Your task to perform on an android device: open a bookmark in the chrome app Image 0: 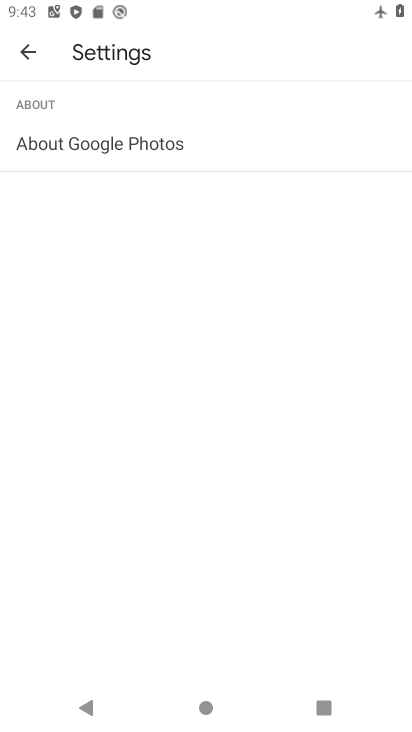
Step 0: press home button
Your task to perform on an android device: open a bookmark in the chrome app Image 1: 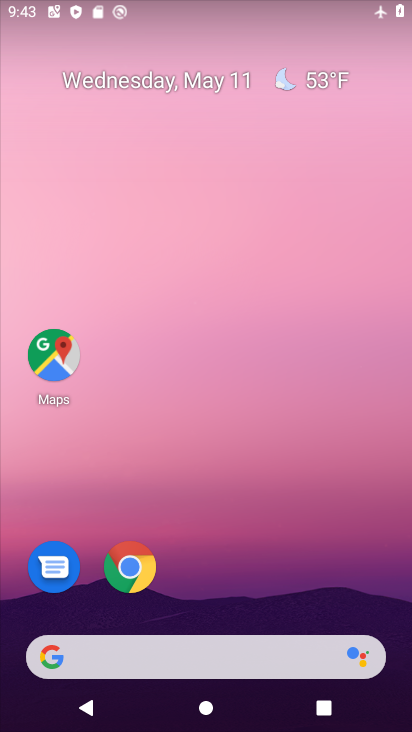
Step 1: click (126, 575)
Your task to perform on an android device: open a bookmark in the chrome app Image 2: 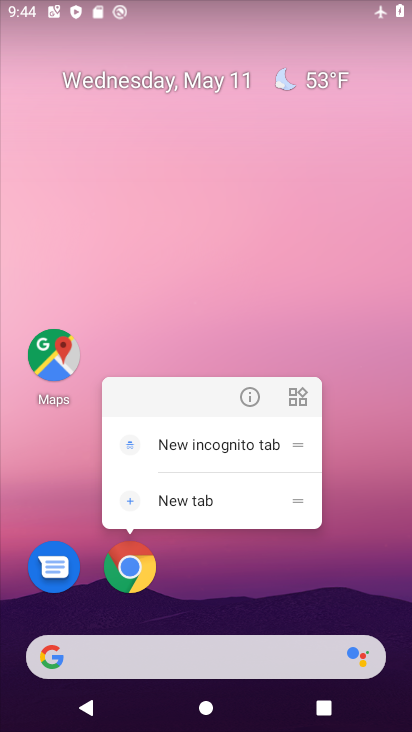
Step 2: click (125, 574)
Your task to perform on an android device: open a bookmark in the chrome app Image 3: 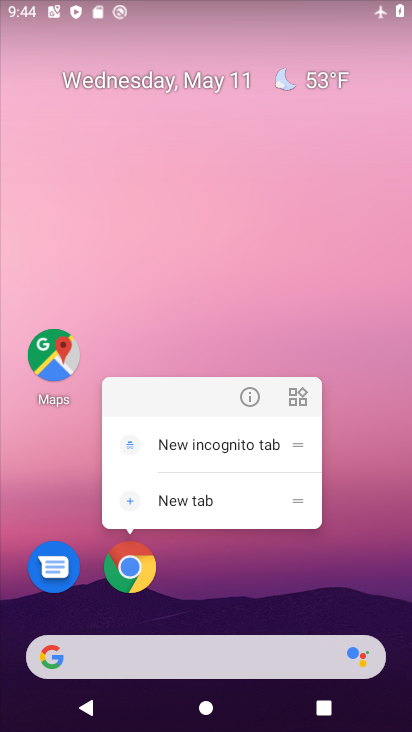
Step 3: click (125, 574)
Your task to perform on an android device: open a bookmark in the chrome app Image 4: 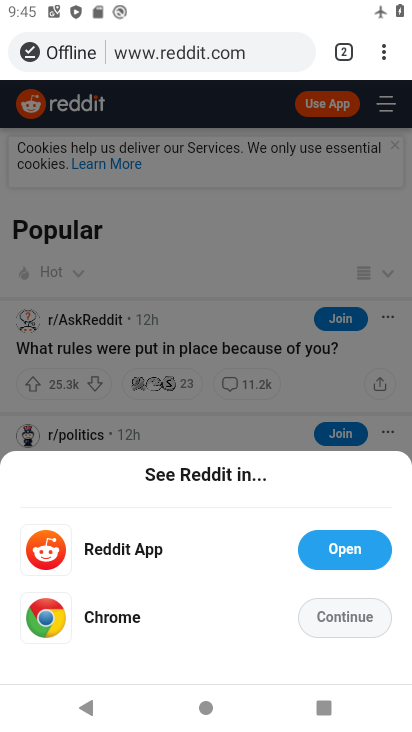
Step 4: click (384, 47)
Your task to perform on an android device: open a bookmark in the chrome app Image 5: 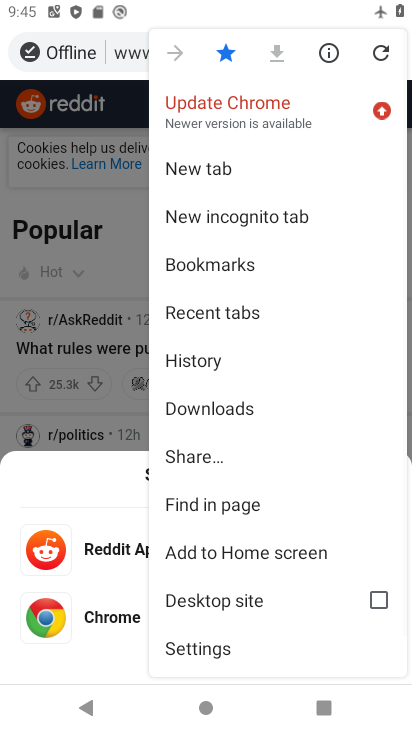
Step 5: click (232, 269)
Your task to perform on an android device: open a bookmark in the chrome app Image 6: 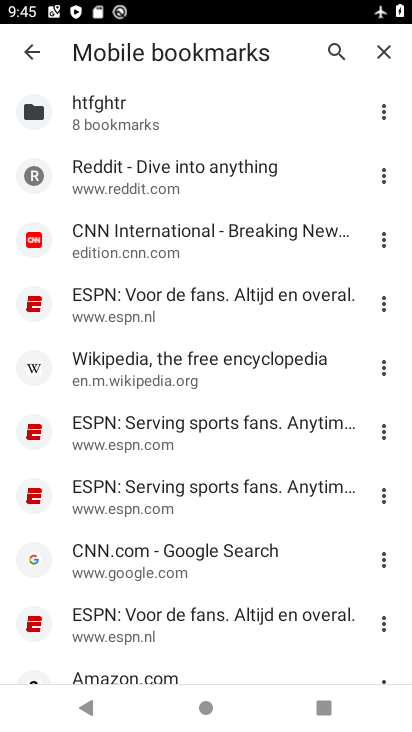
Step 6: click (232, 269)
Your task to perform on an android device: open a bookmark in the chrome app Image 7: 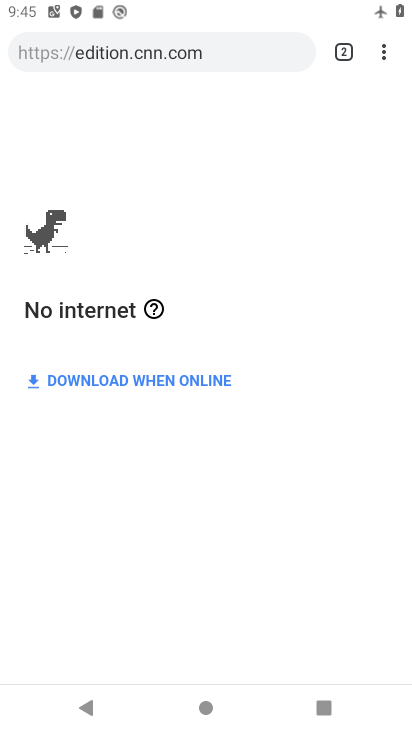
Step 7: task complete